Your task to perform on an android device: change text size in settings app Image 0: 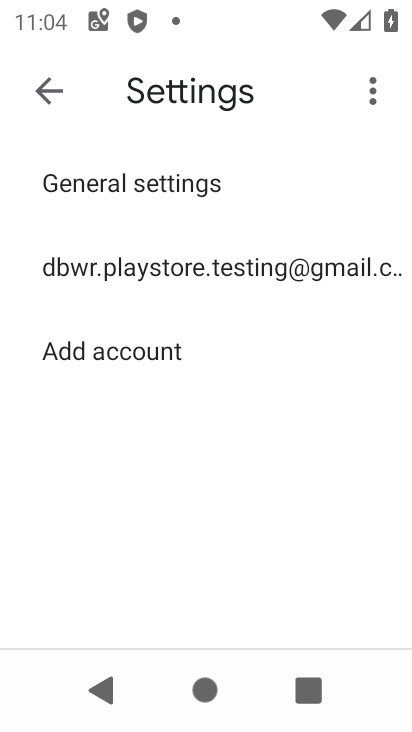
Step 0: press home button
Your task to perform on an android device: change text size in settings app Image 1: 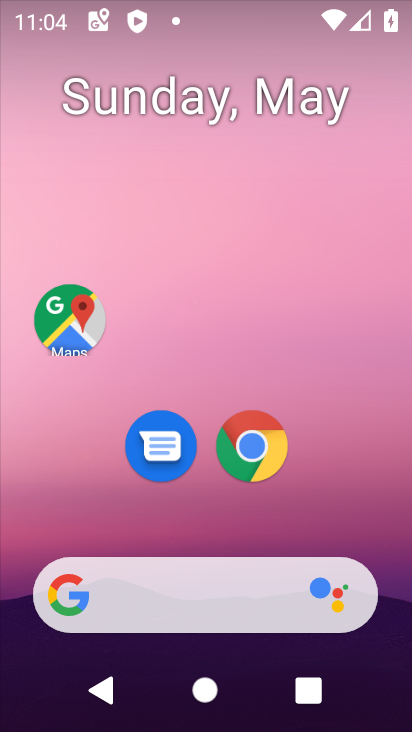
Step 1: drag from (206, 520) to (292, 38)
Your task to perform on an android device: change text size in settings app Image 2: 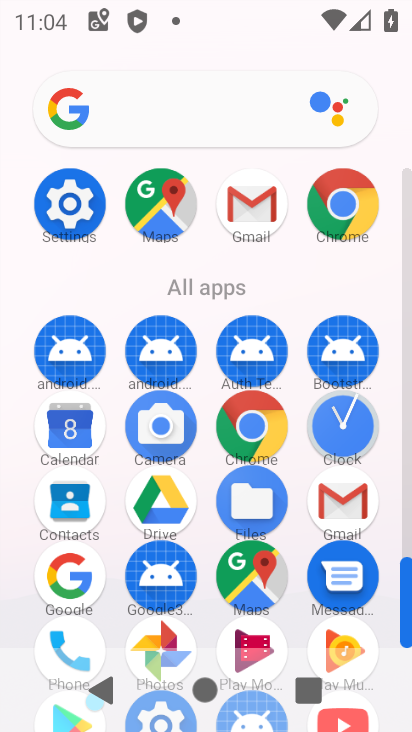
Step 2: click (90, 206)
Your task to perform on an android device: change text size in settings app Image 3: 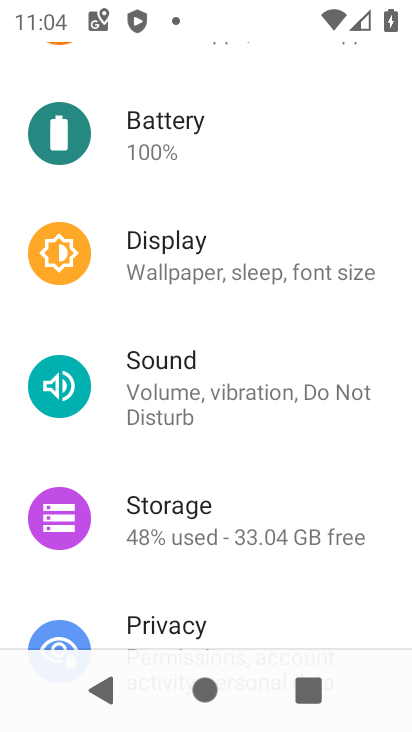
Step 3: click (251, 256)
Your task to perform on an android device: change text size in settings app Image 4: 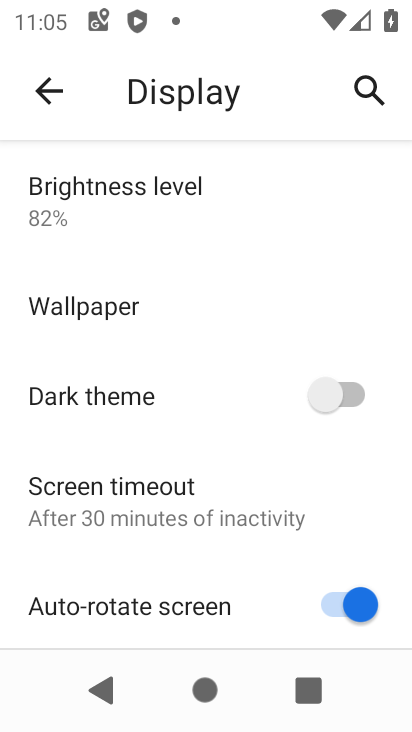
Step 4: drag from (177, 512) to (211, 187)
Your task to perform on an android device: change text size in settings app Image 5: 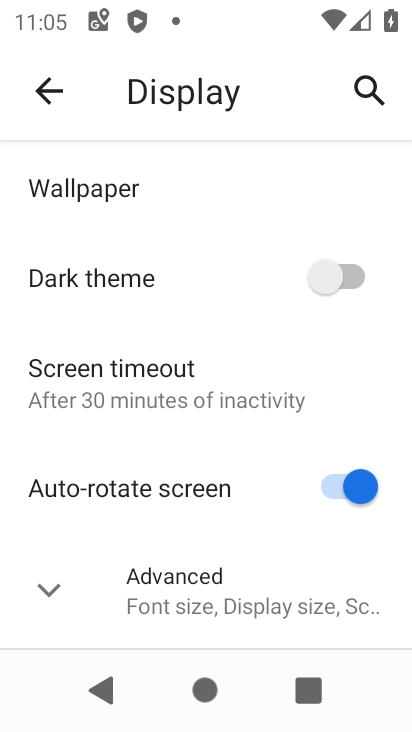
Step 5: click (48, 598)
Your task to perform on an android device: change text size in settings app Image 6: 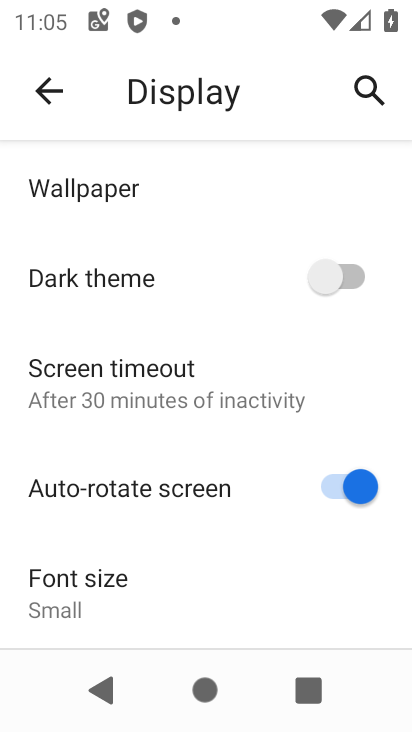
Step 6: click (101, 596)
Your task to perform on an android device: change text size in settings app Image 7: 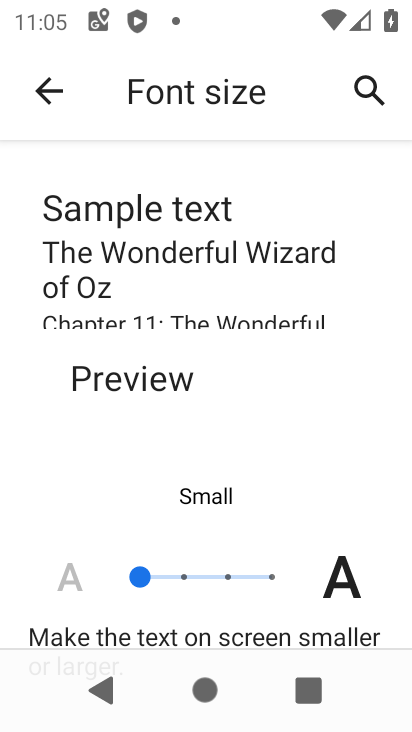
Step 7: click (182, 571)
Your task to perform on an android device: change text size in settings app Image 8: 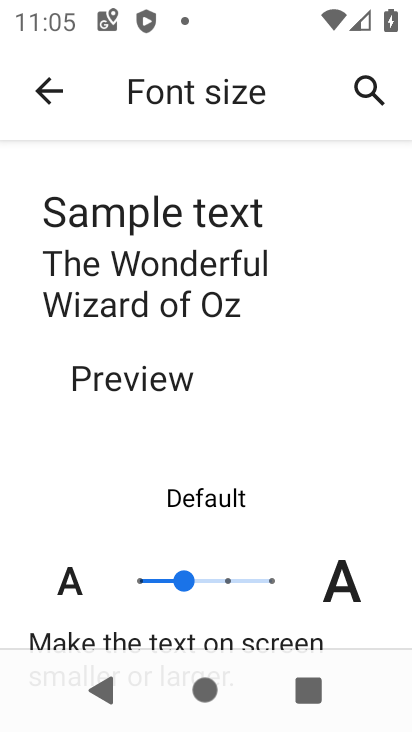
Step 8: task complete